Your task to perform on an android device: Search for "bose quietcomfort 35" on ebay, select the first entry, and add it to the cart. Image 0: 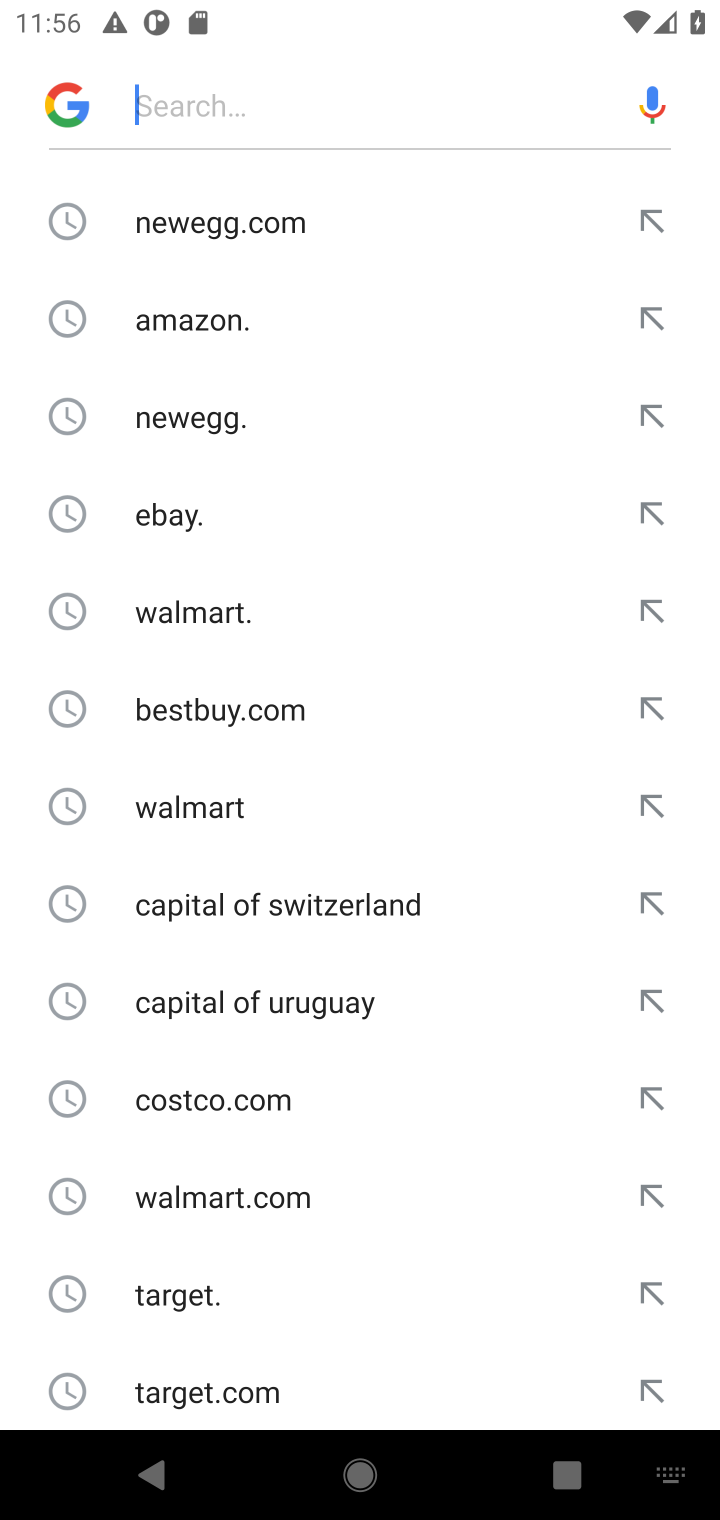
Step 0: click (185, 525)
Your task to perform on an android device: Search for "bose quietcomfort 35" on ebay, select the first entry, and add it to the cart. Image 1: 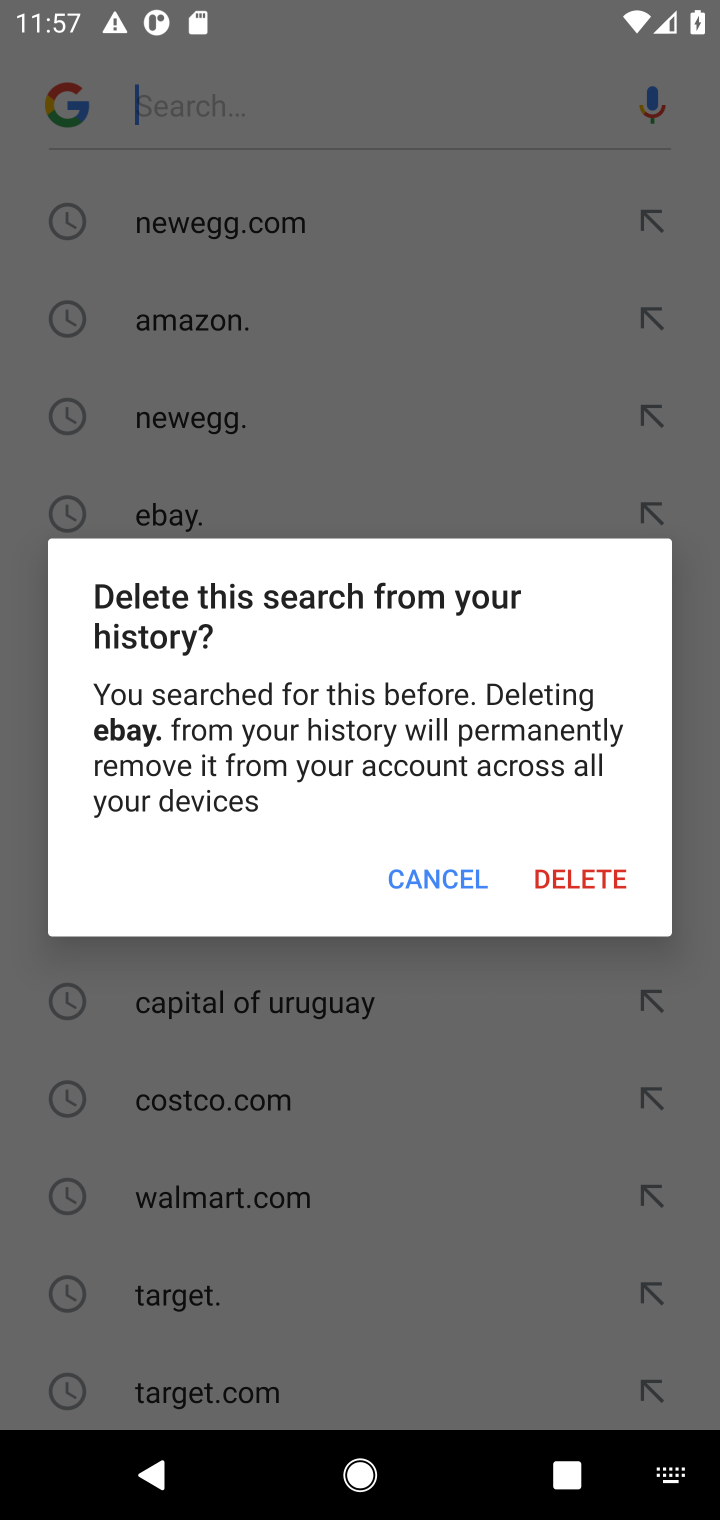
Step 1: click (443, 876)
Your task to perform on an android device: Search for "bose quietcomfort 35" on ebay, select the first entry, and add it to the cart. Image 2: 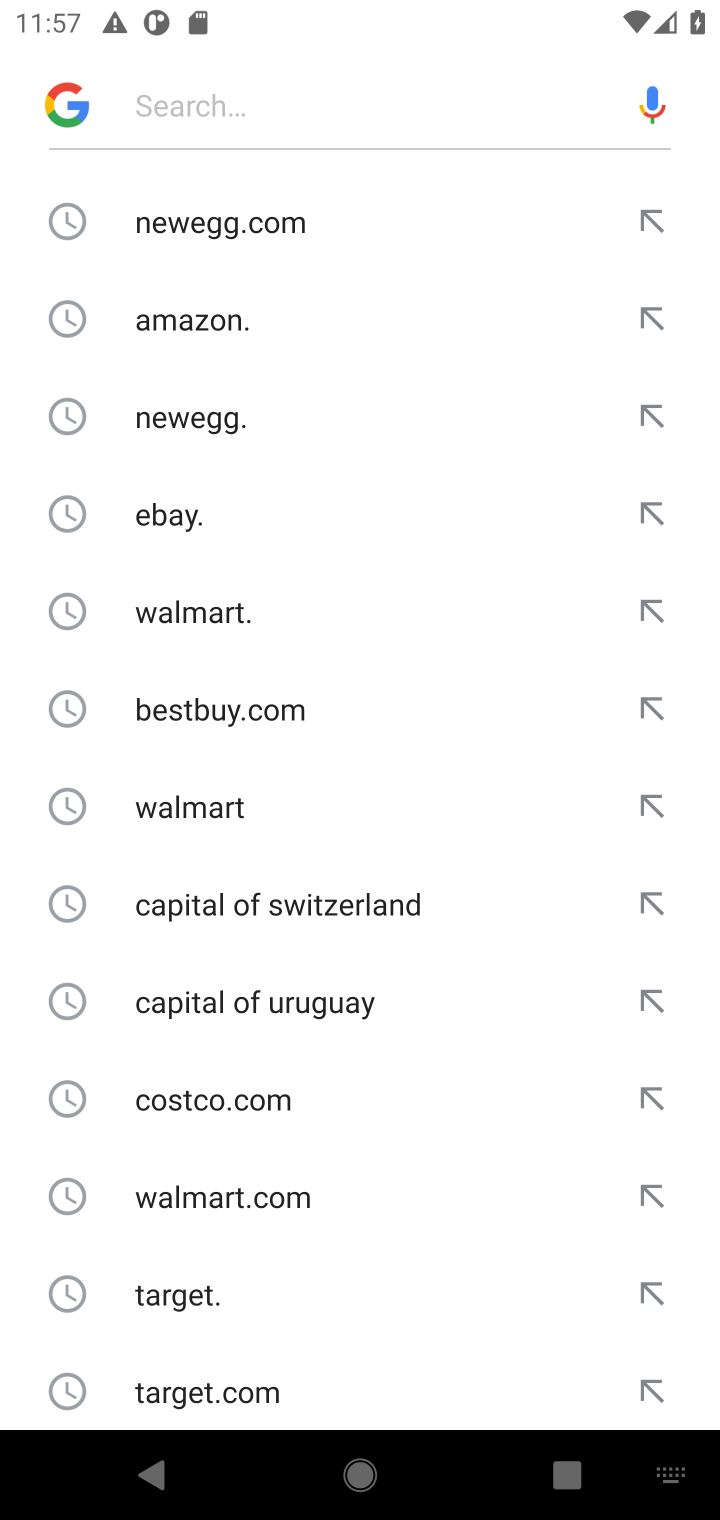
Step 2: click (174, 519)
Your task to perform on an android device: Search for "bose quietcomfort 35" on ebay, select the first entry, and add it to the cart. Image 3: 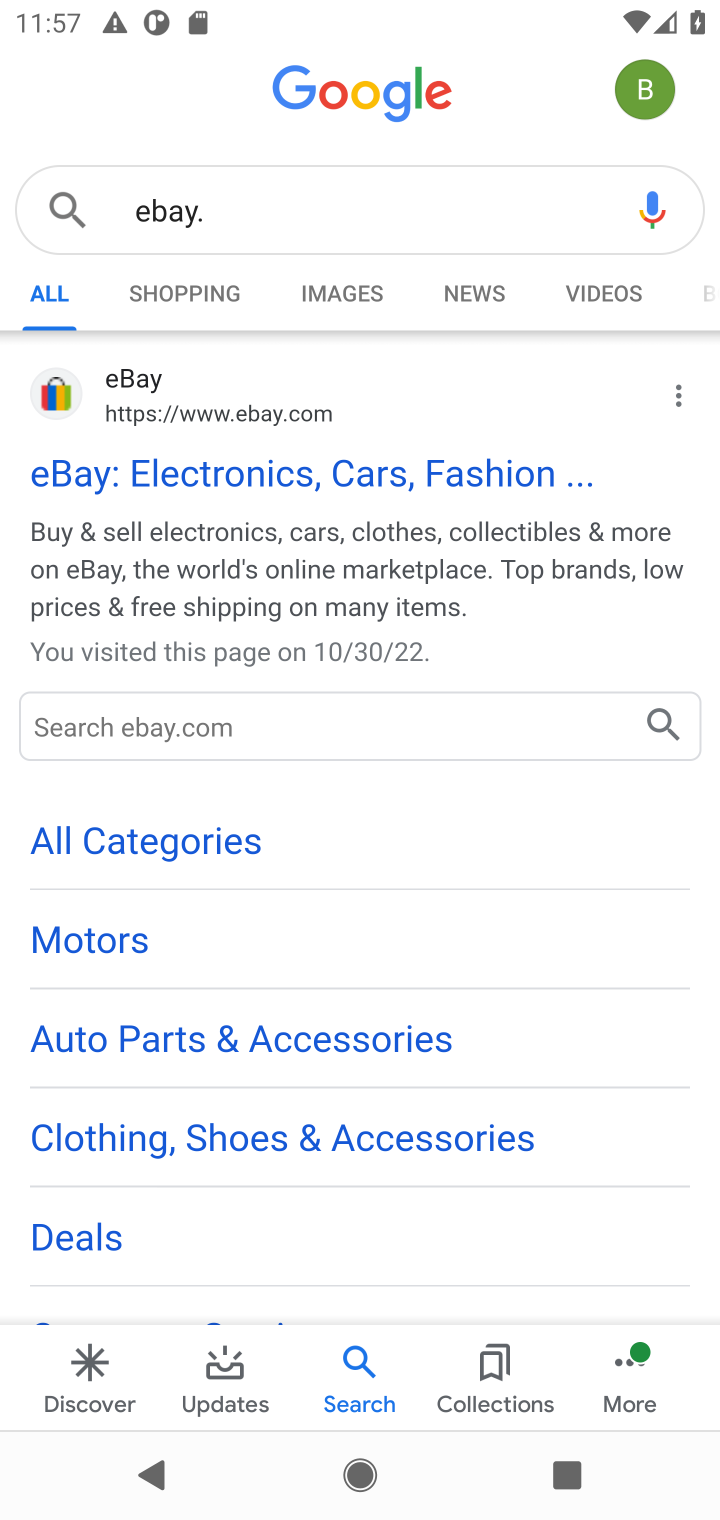
Step 3: click (123, 486)
Your task to perform on an android device: Search for "bose quietcomfort 35" on ebay, select the first entry, and add it to the cart. Image 4: 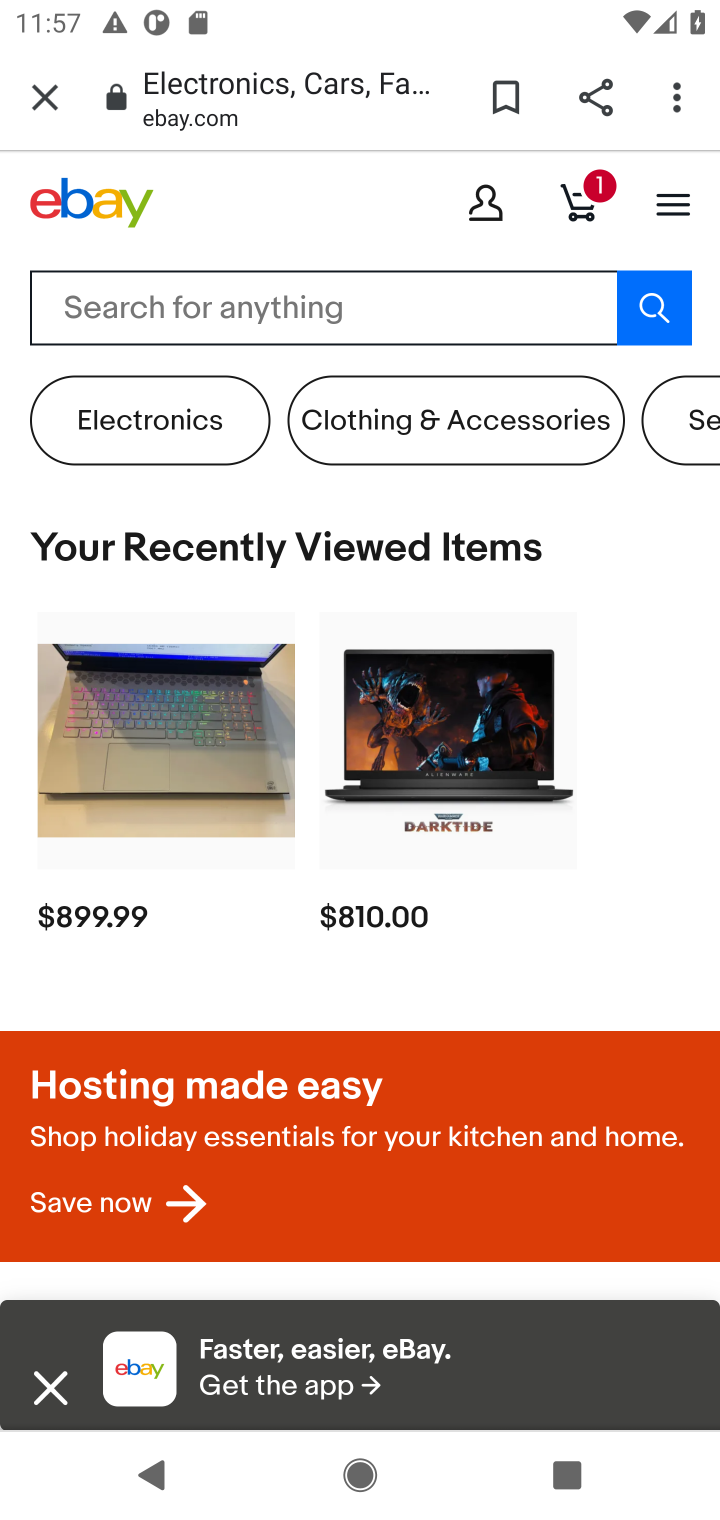
Step 4: click (254, 316)
Your task to perform on an android device: Search for "bose quietcomfort 35" on ebay, select the first entry, and add it to the cart. Image 5: 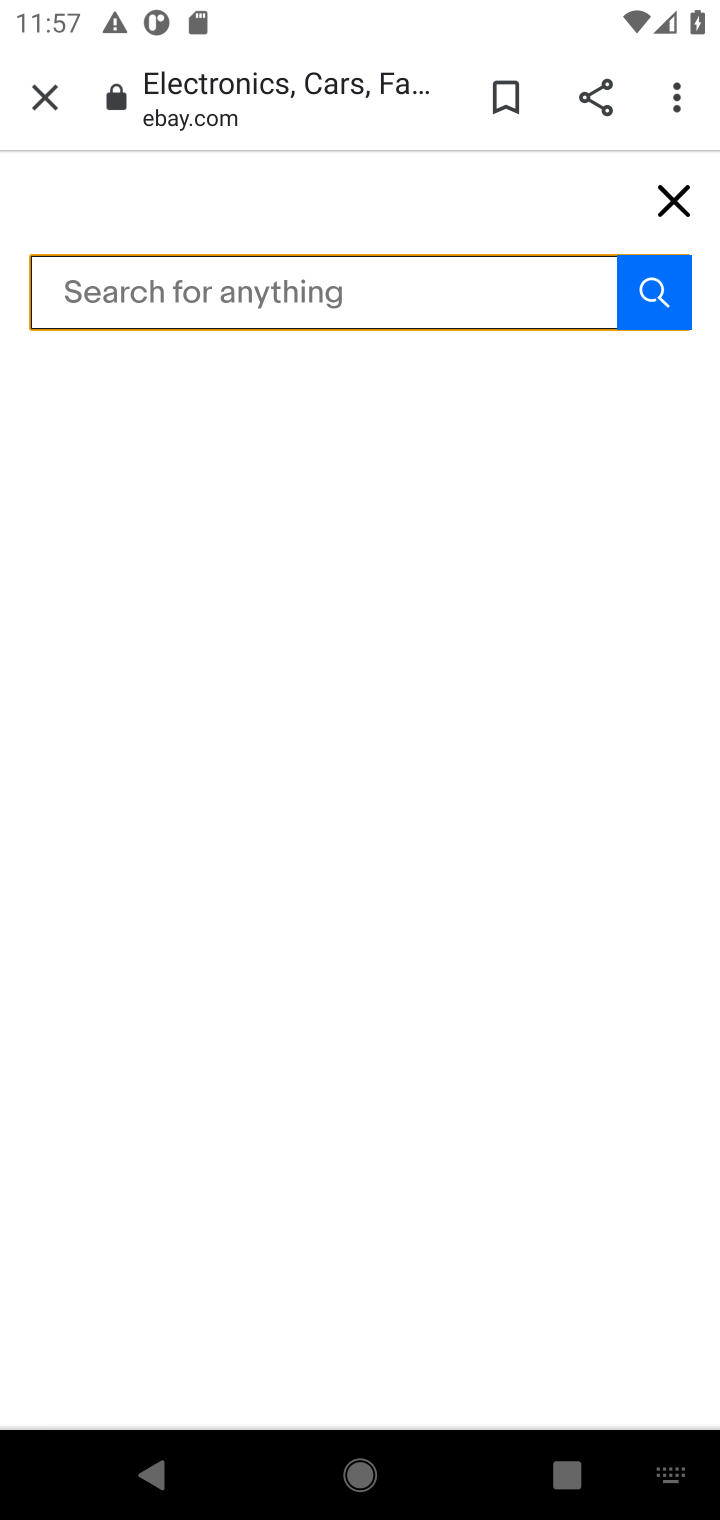
Step 5: click (173, 298)
Your task to perform on an android device: Search for "bose quietcomfort 35" on ebay, select the first entry, and add it to the cart. Image 6: 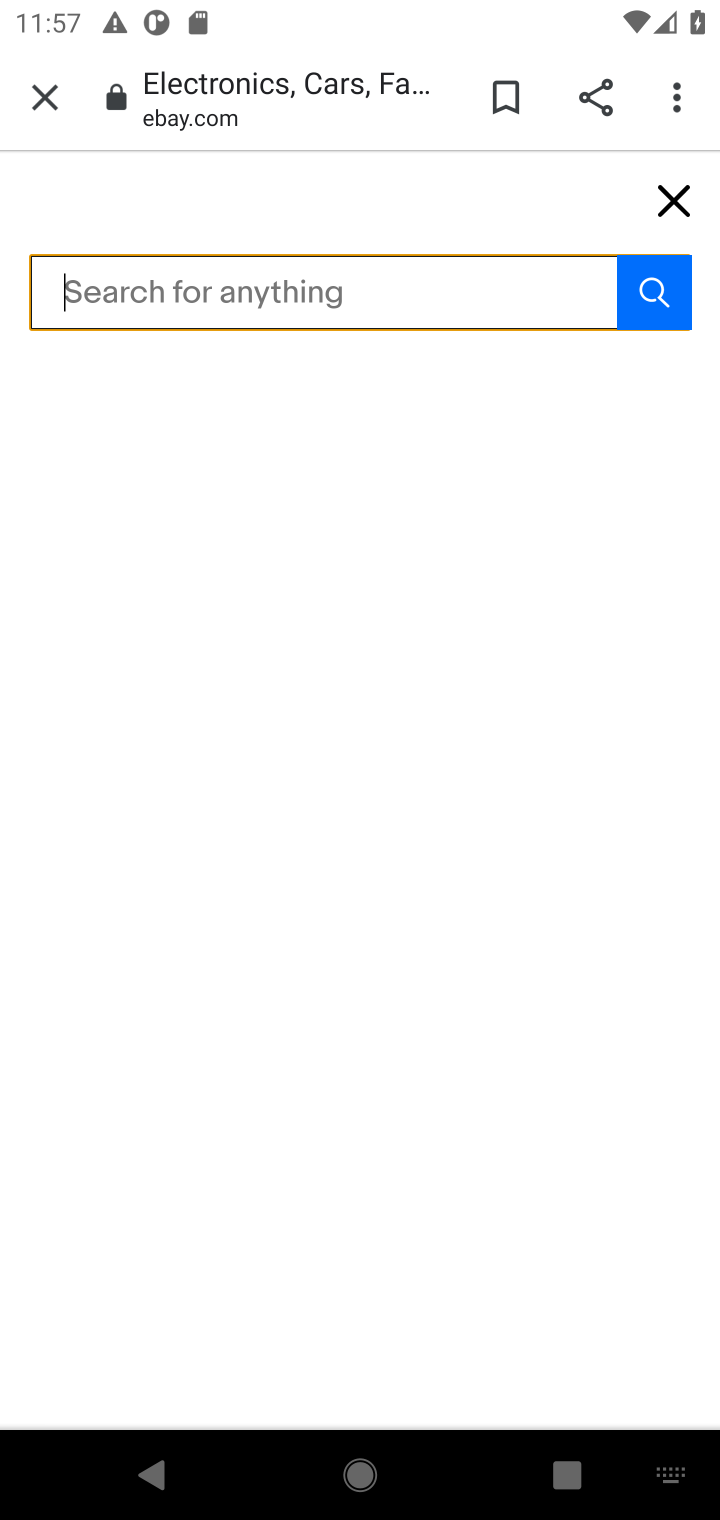
Step 6: type "bose quietcomfort 35"
Your task to perform on an android device: Search for "bose quietcomfort 35" on ebay, select the first entry, and add it to the cart. Image 7: 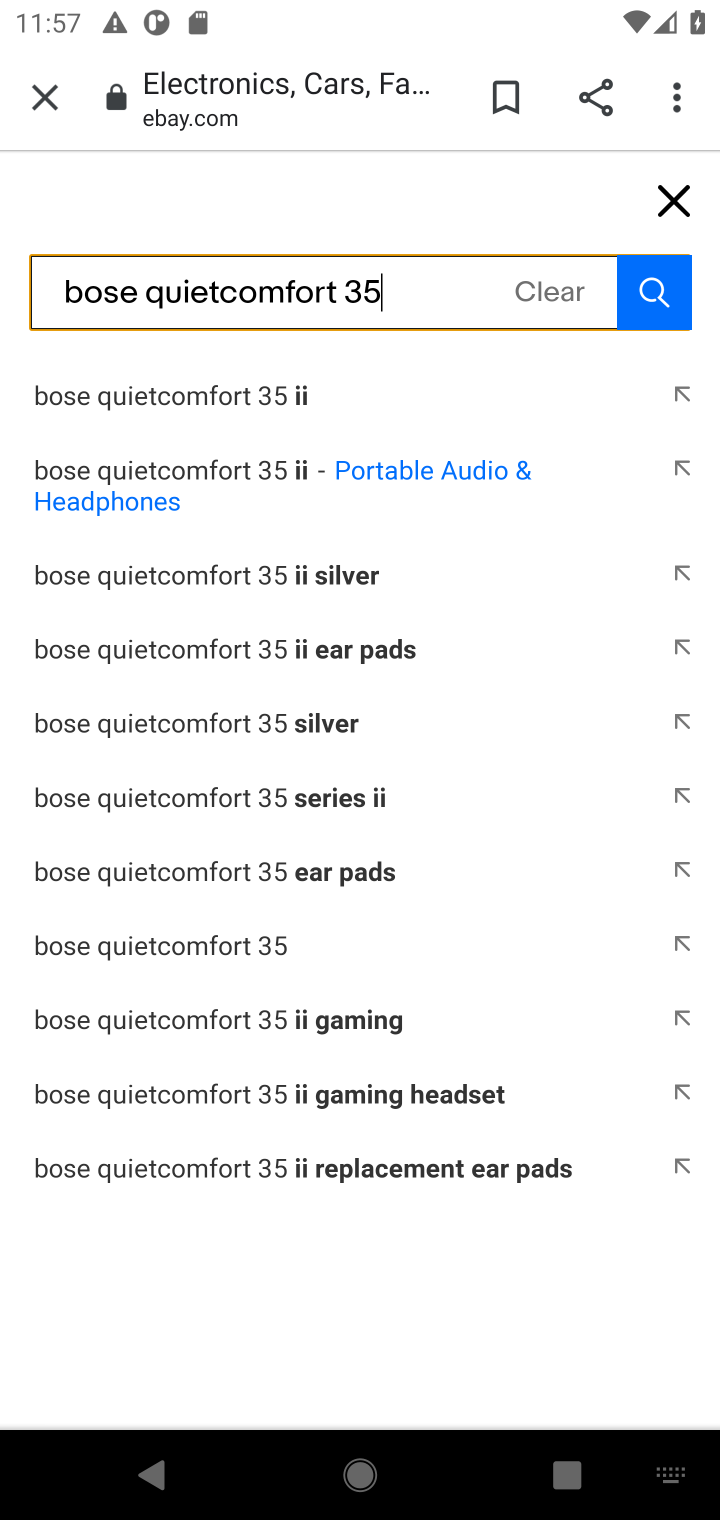
Step 7: click (252, 945)
Your task to perform on an android device: Search for "bose quietcomfort 35" on ebay, select the first entry, and add it to the cart. Image 8: 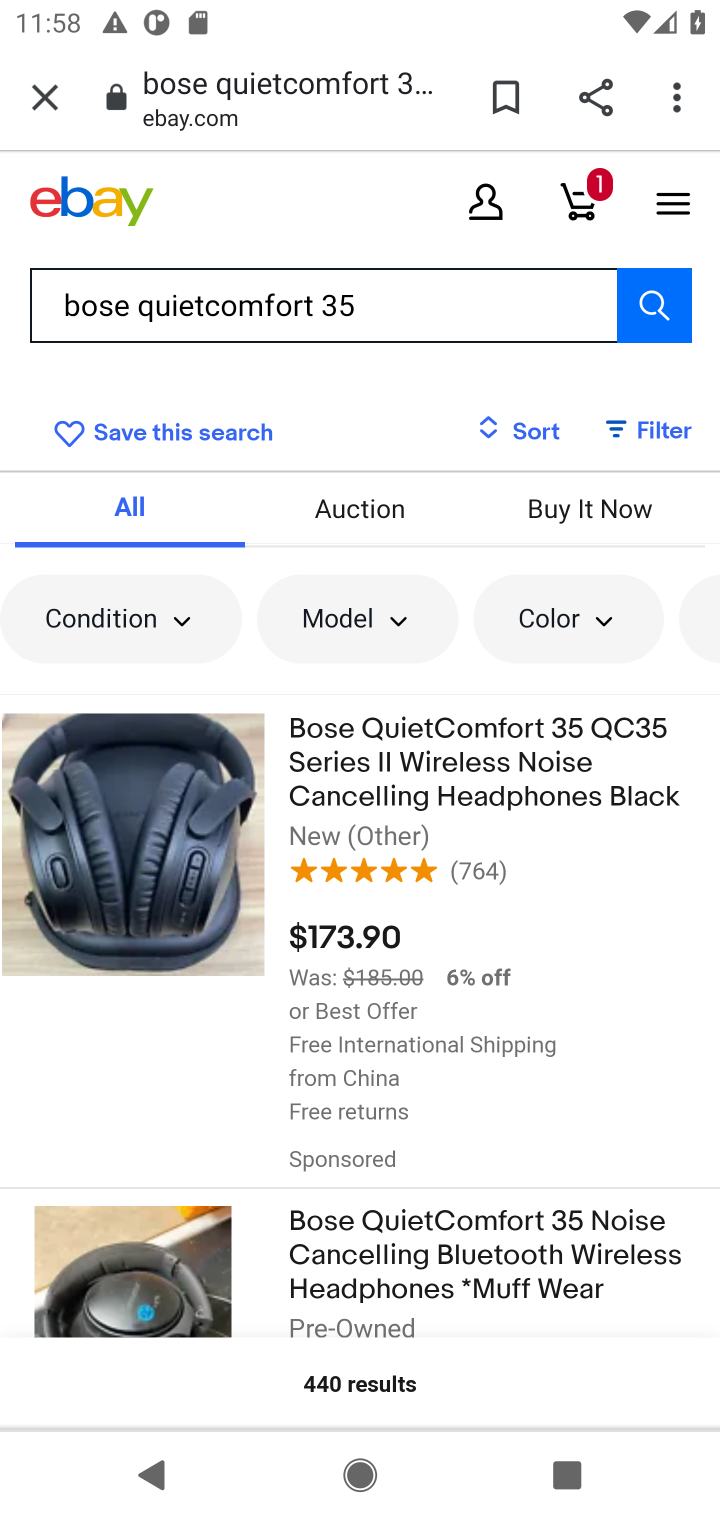
Step 8: click (302, 809)
Your task to perform on an android device: Search for "bose quietcomfort 35" on ebay, select the first entry, and add it to the cart. Image 9: 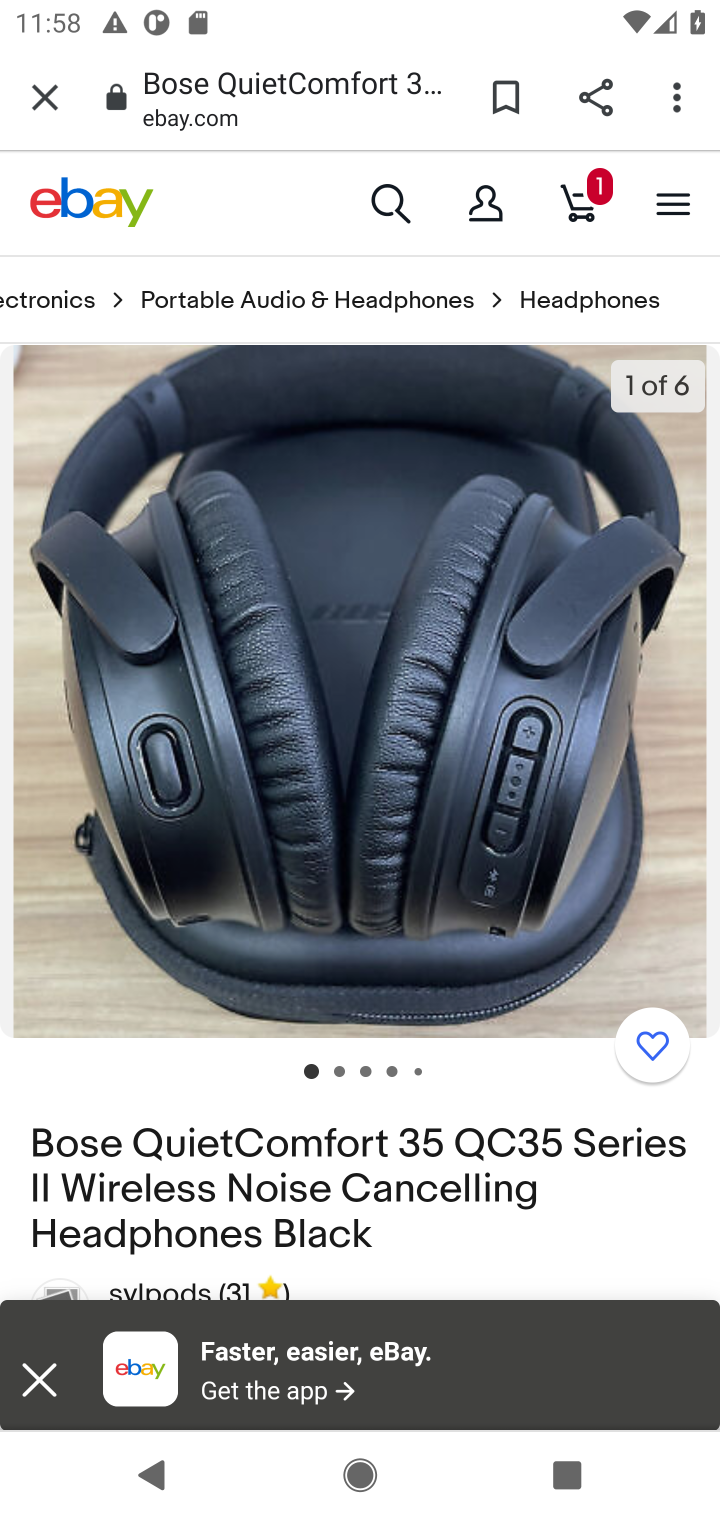
Step 9: drag from (433, 495) to (425, 425)
Your task to perform on an android device: Search for "bose quietcomfort 35" on ebay, select the first entry, and add it to the cart. Image 10: 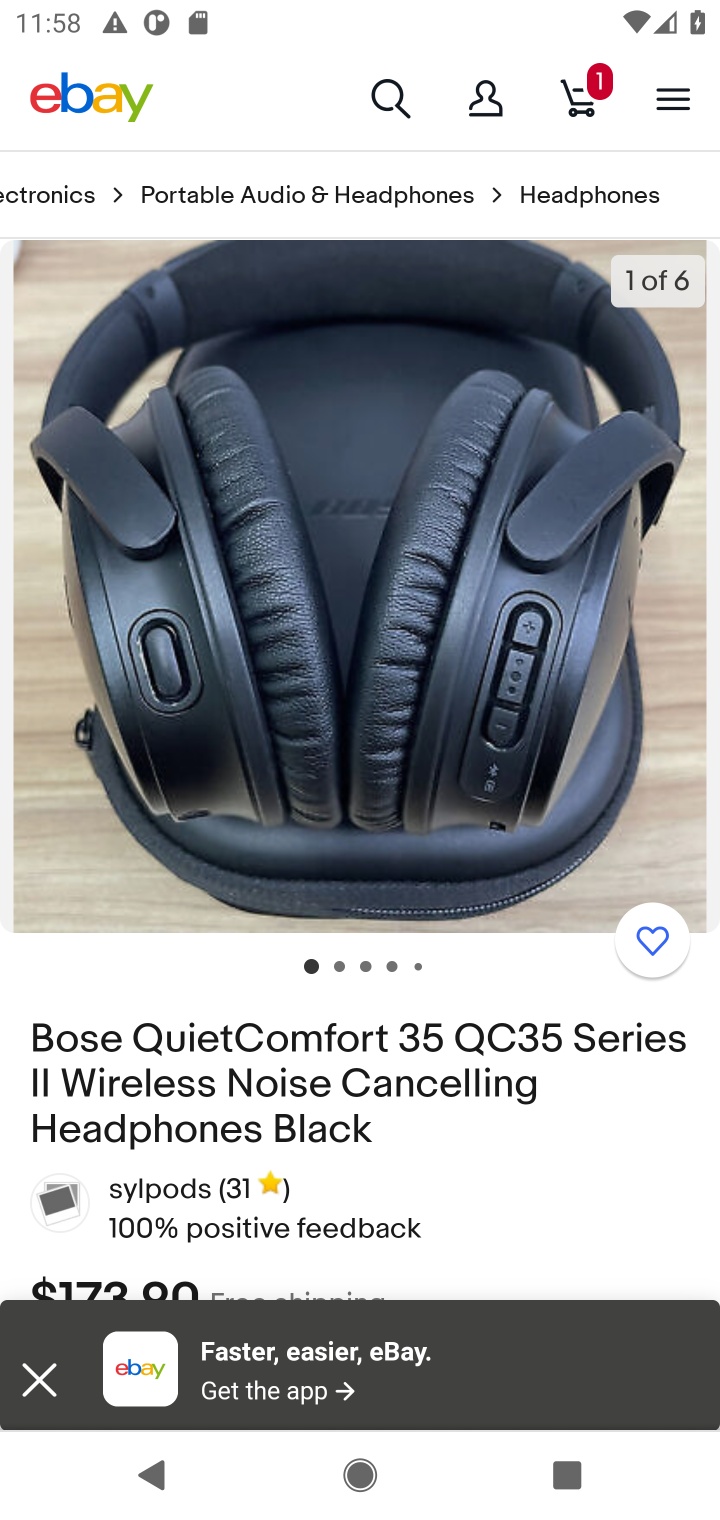
Step 10: drag from (437, 1038) to (419, 481)
Your task to perform on an android device: Search for "bose quietcomfort 35" on ebay, select the first entry, and add it to the cart. Image 11: 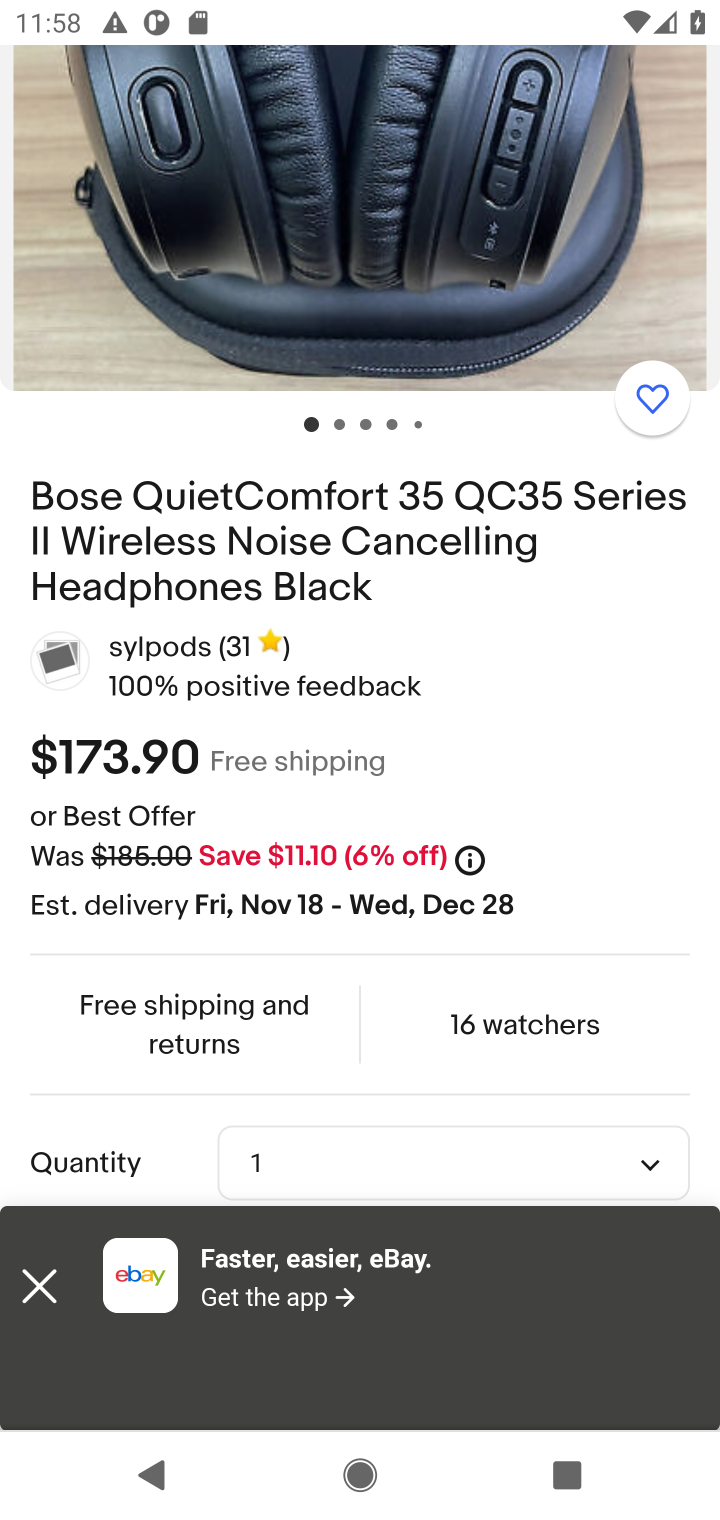
Step 11: drag from (343, 886) to (373, 552)
Your task to perform on an android device: Search for "bose quietcomfort 35" on ebay, select the first entry, and add it to the cart. Image 12: 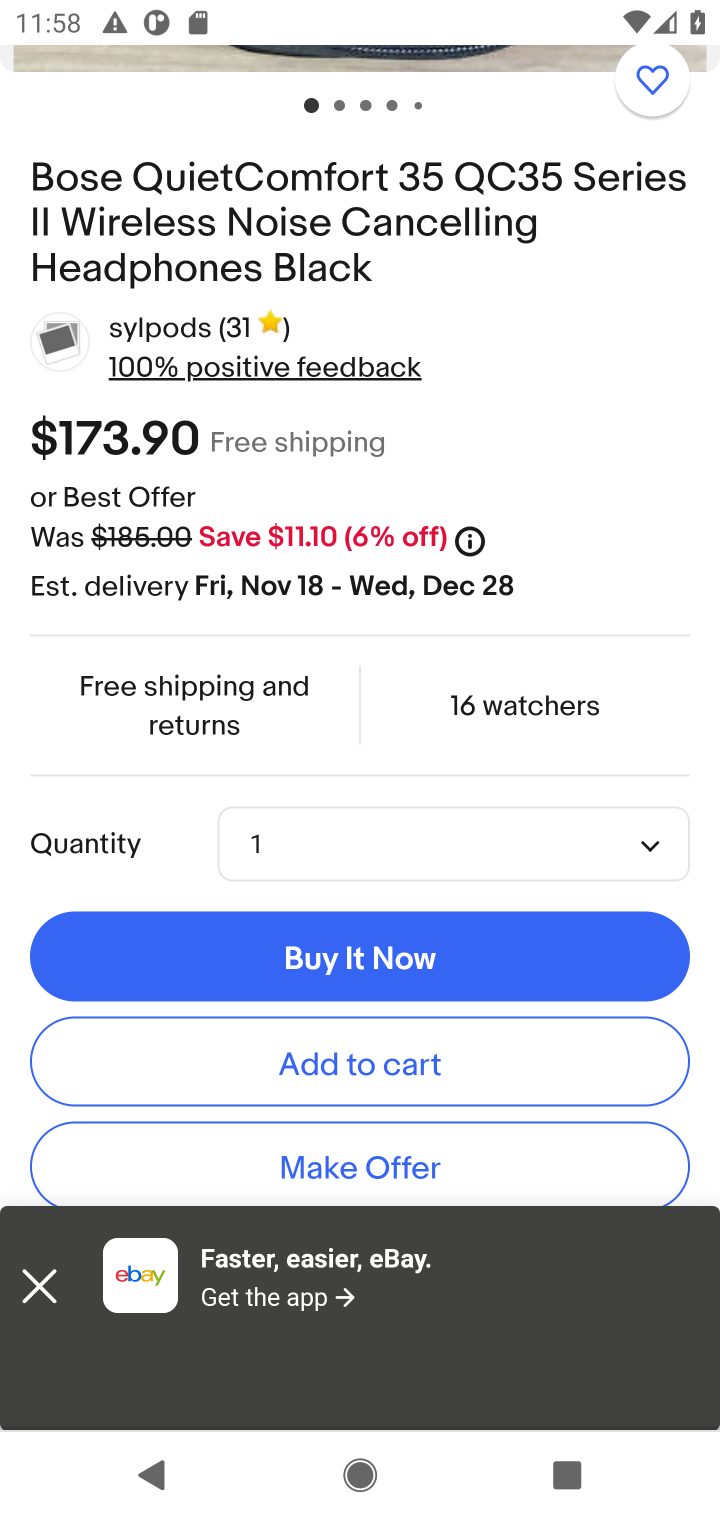
Step 12: click (353, 1056)
Your task to perform on an android device: Search for "bose quietcomfort 35" on ebay, select the first entry, and add it to the cart. Image 13: 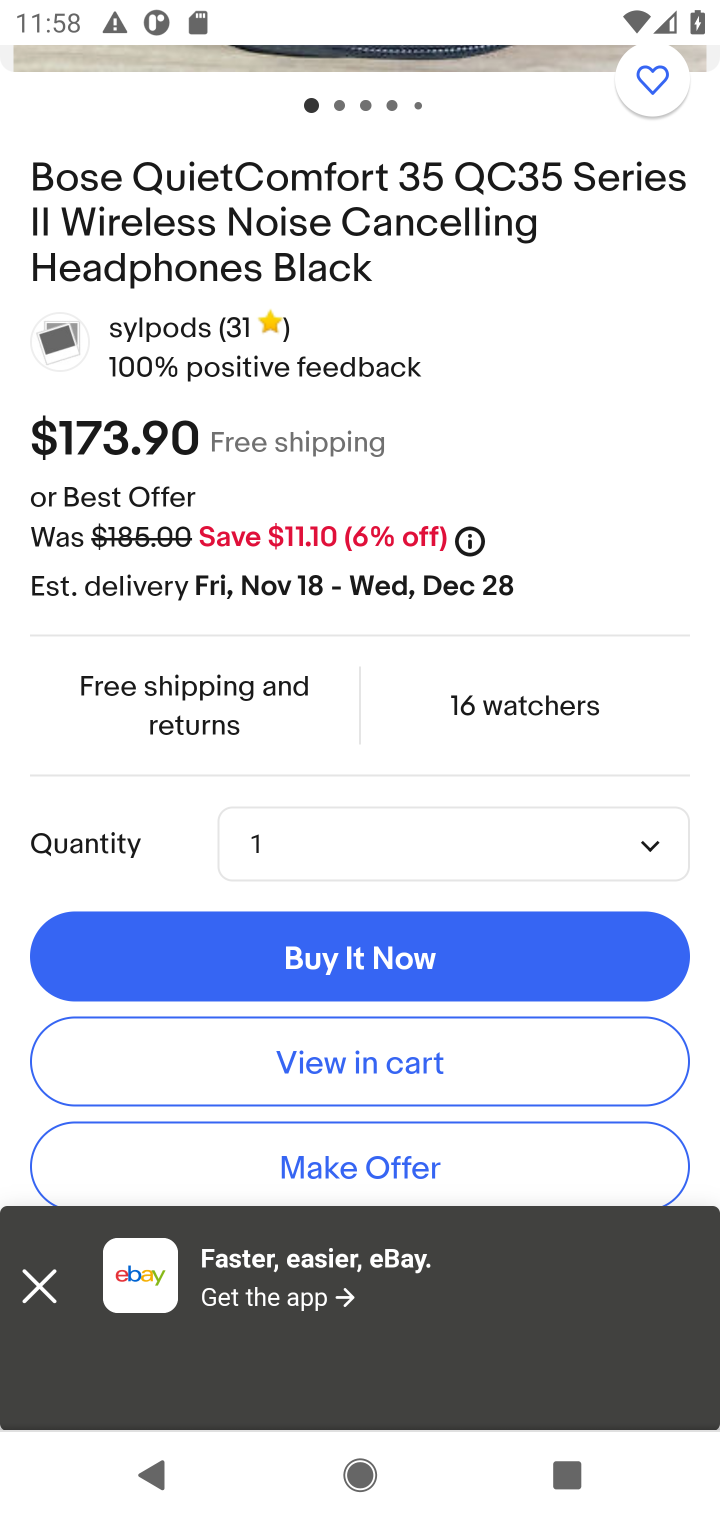
Step 13: task complete